Your task to perform on an android device: open a bookmark in the chrome app Image 0: 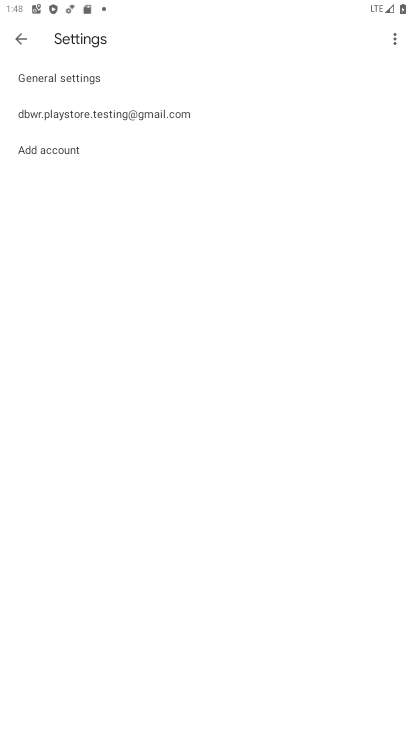
Step 0: press home button
Your task to perform on an android device: open a bookmark in the chrome app Image 1: 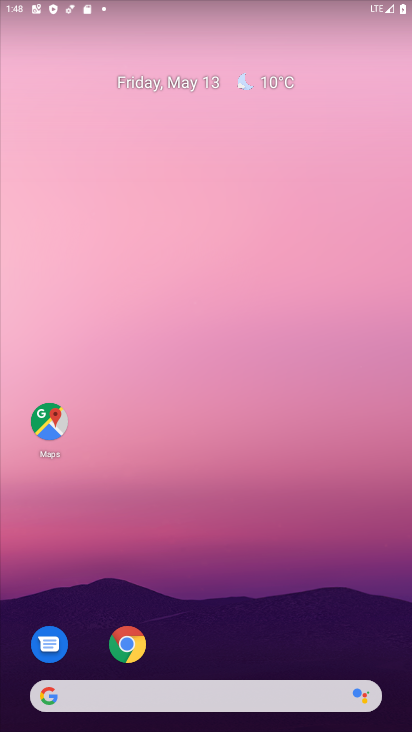
Step 1: drag from (216, 625) to (234, 60)
Your task to perform on an android device: open a bookmark in the chrome app Image 2: 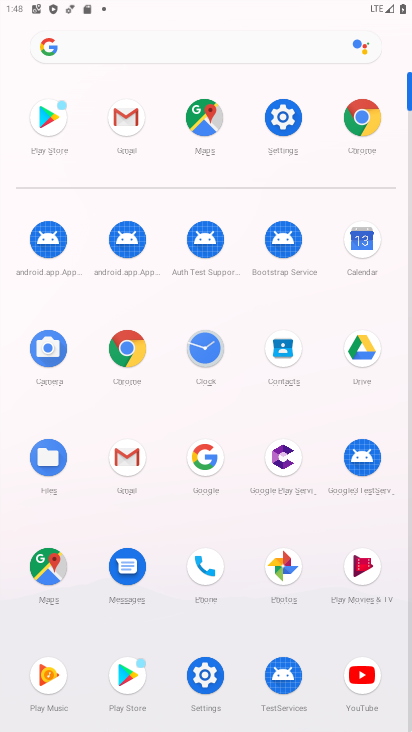
Step 2: click (127, 338)
Your task to perform on an android device: open a bookmark in the chrome app Image 3: 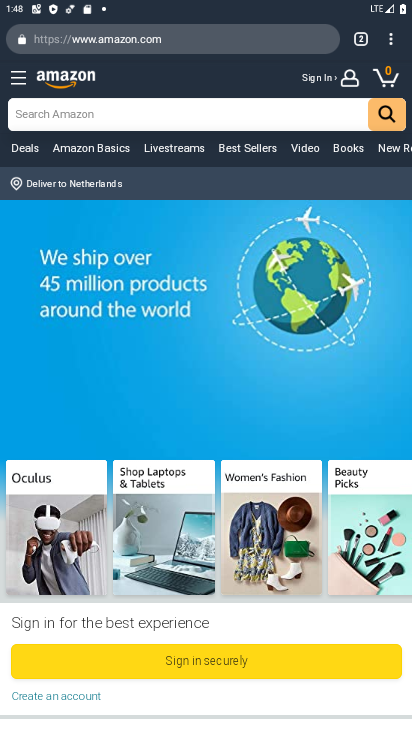
Step 3: task complete